Your task to perform on an android device: star an email in the gmail app Image 0: 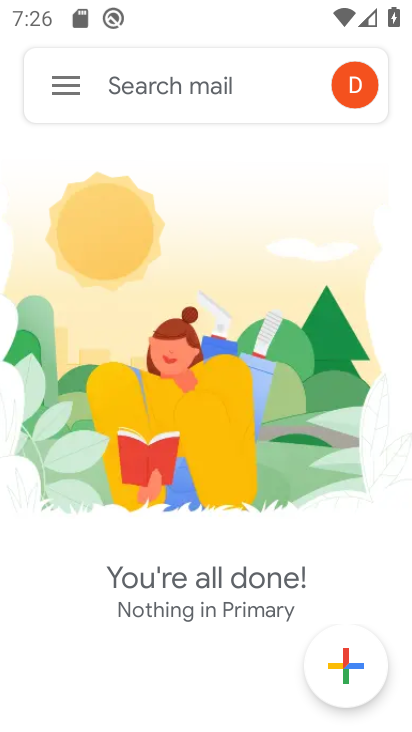
Step 0: click (53, 86)
Your task to perform on an android device: star an email in the gmail app Image 1: 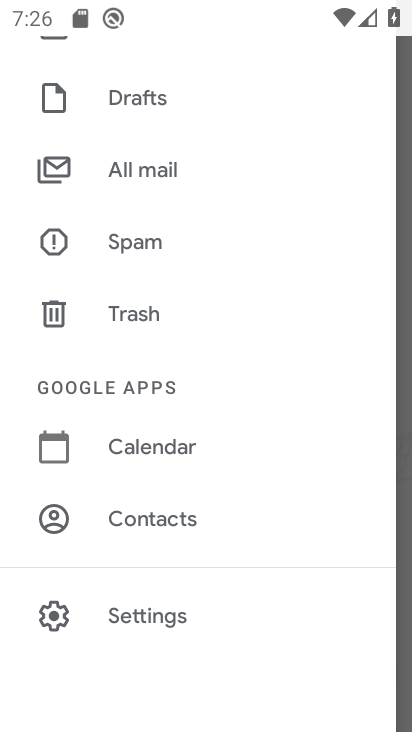
Step 1: click (167, 154)
Your task to perform on an android device: star an email in the gmail app Image 2: 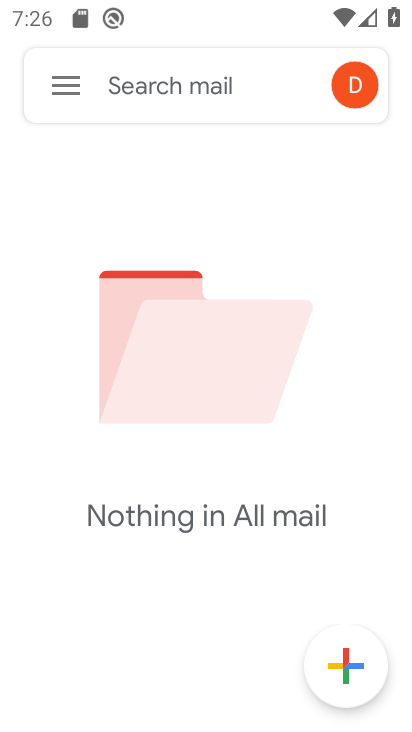
Step 2: task complete